Your task to perform on an android device: toggle translation in the chrome app Image 0: 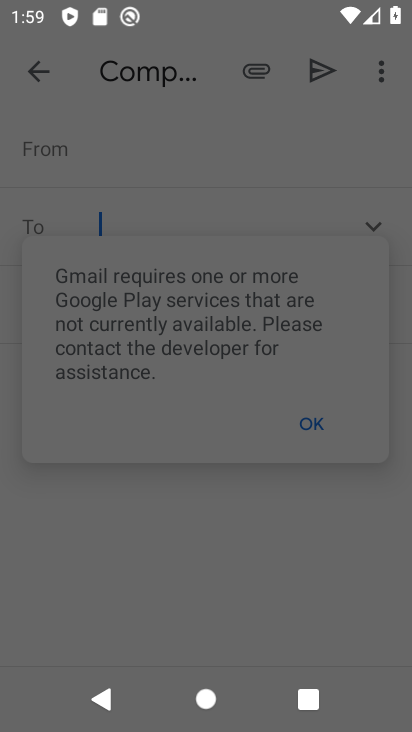
Step 0: press back button
Your task to perform on an android device: toggle translation in the chrome app Image 1: 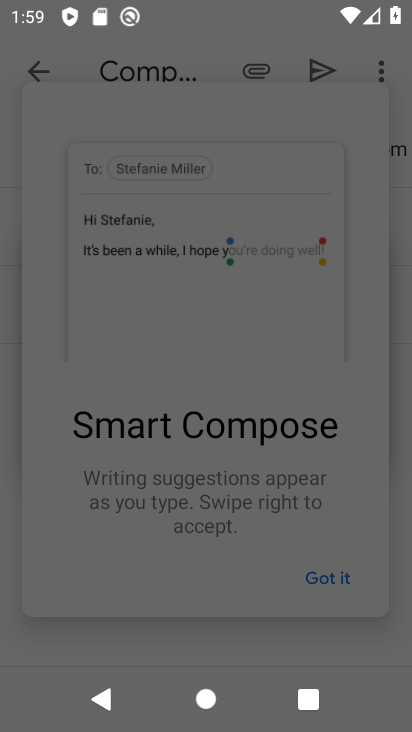
Step 1: press back button
Your task to perform on an android device: toggle translation in the chrome app Image 2: 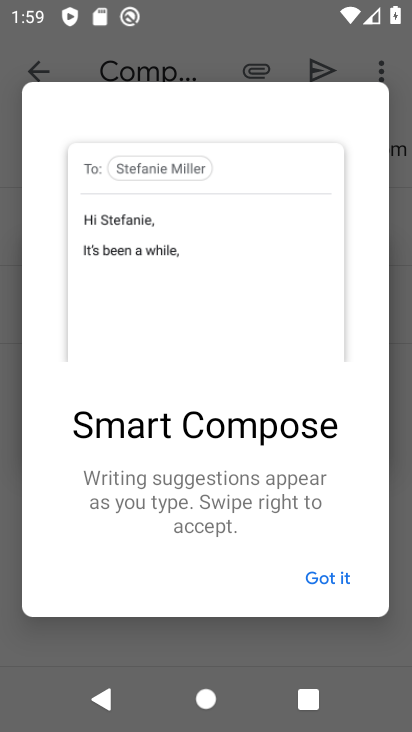
Step 2: press back button
Your task to perform on an android device: toggle translation in the chrome app Image 3: 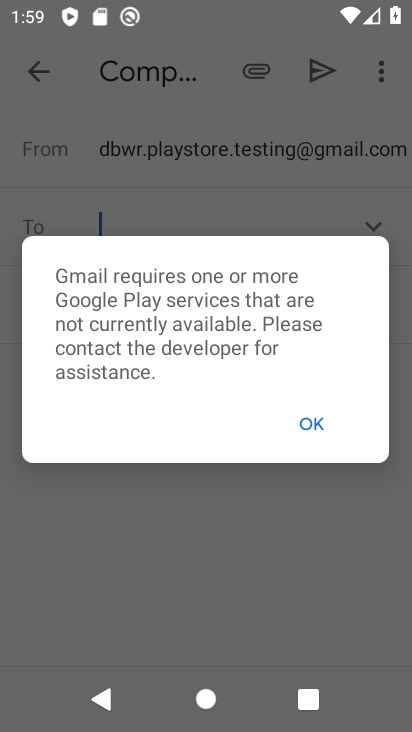
Step 3: press back button
Your task to perform on an android device: toggle translation in the chrome app Image 4: 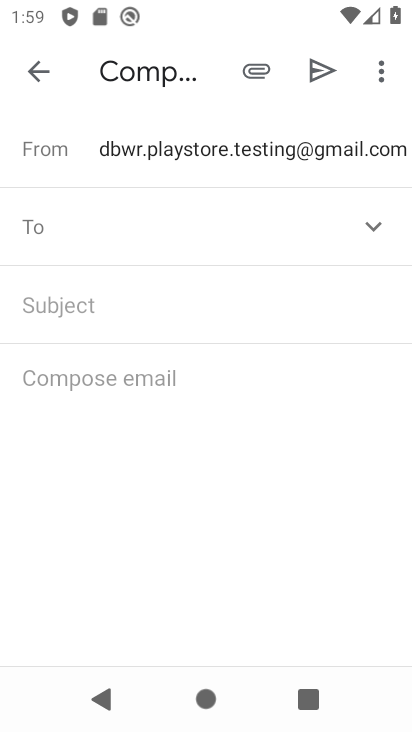
Step 4: press back button
Your task to perform on an android device: toggle translation in the chrome app Image 5: 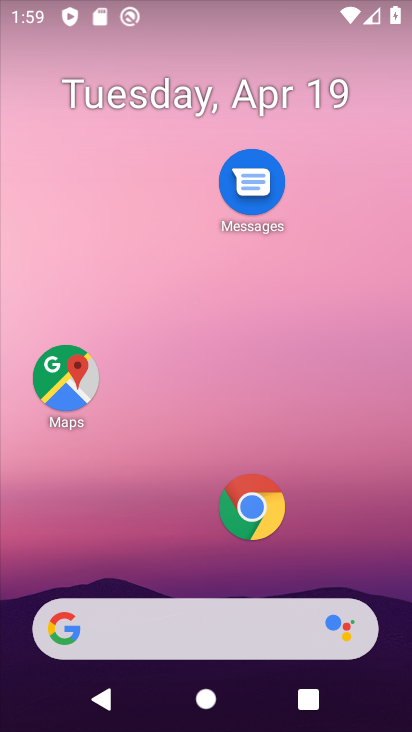
Step 5: drag from (128, 559) to (244, 5)
Your task to perform on an android device: toggle translation in the chrome app Image 6: 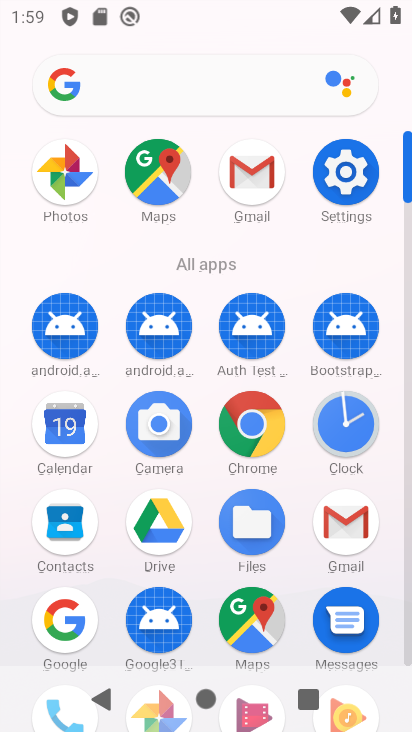
Step 6: click (246, 412)
Your task to perform on an android device: toggle translation in the chrome app Image 7: 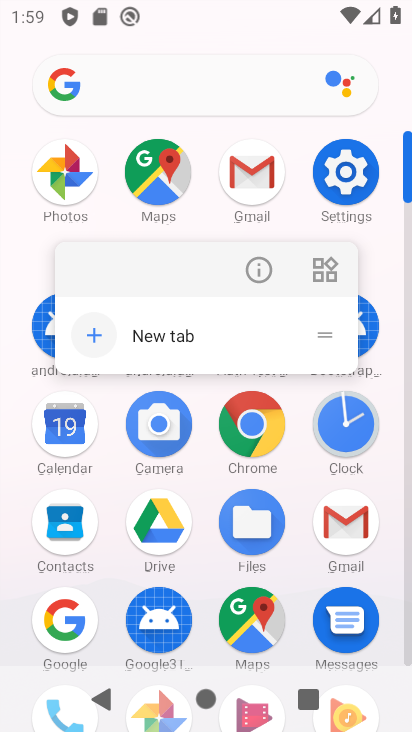
Step 7: click (246, 419)
Your task to perform on an android device: toggle translation in the chrome app Image 8: 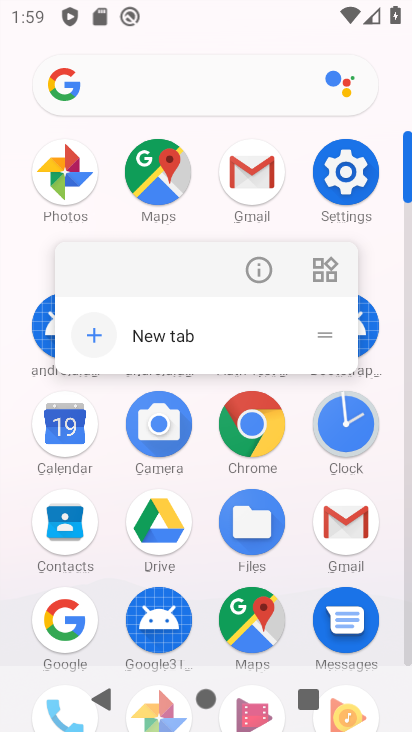
Step 8: click (243, 423)
Your task to perform on an android device: toggle translation in the chrome app Image 9: 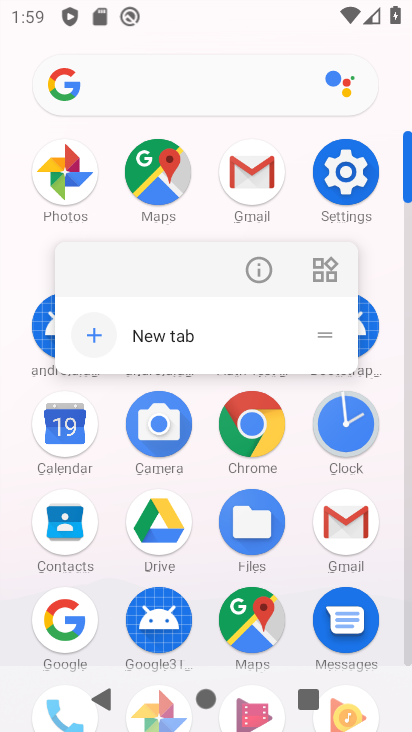
Step 9: click (264, 444)
Your task to perform on an android device: toggle translation in the chrome app Image 10: 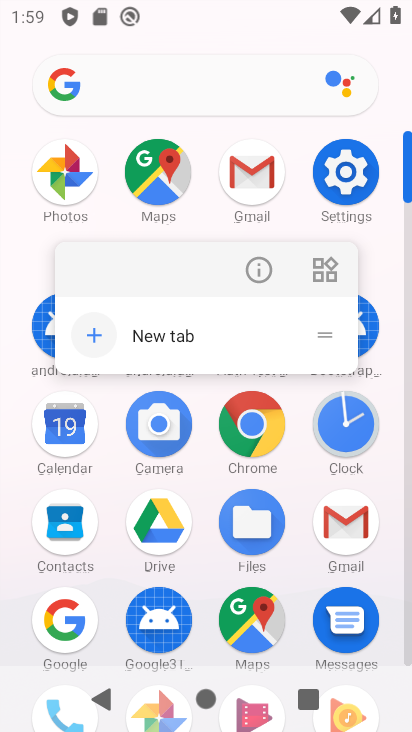
Step 10: click (282, 404)
Your task to perform on an android device: toggle translation in the chrome app Image 11: 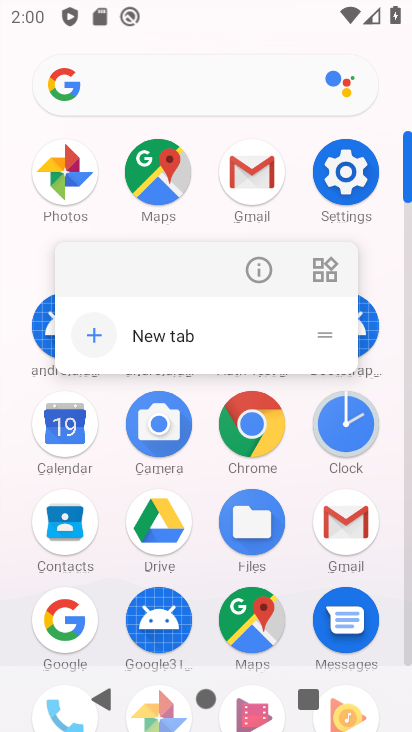
Step 11: click (254, 423)
Your task to perform on an android device: toggle translation in the chrome app Image 12: 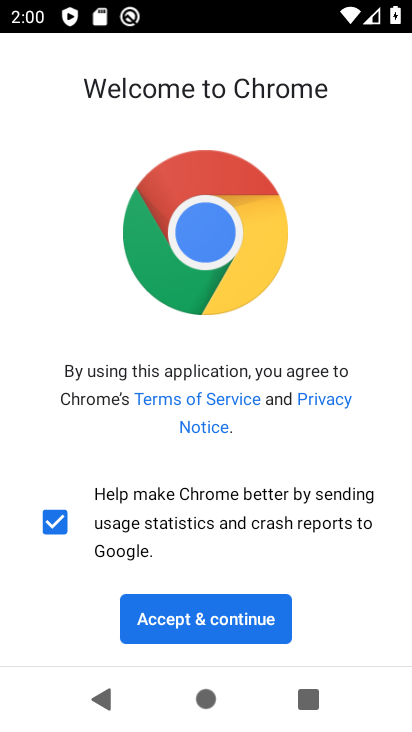
Step 12: click (240, 625)
Your task to perform on an android device: toggle translation in the chrome app Image 13: 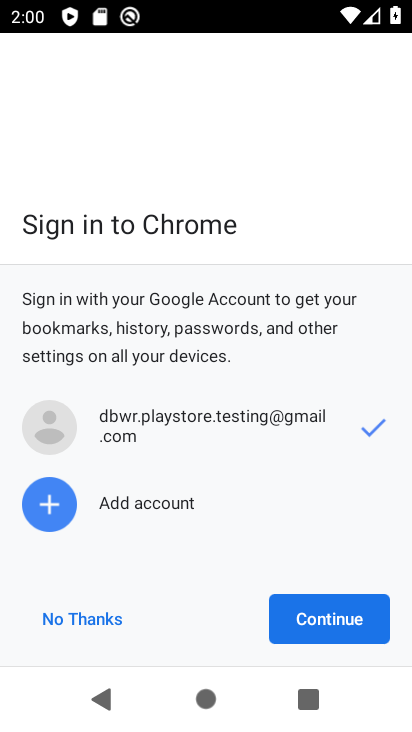
Step 13: click (351, 612)
Your task to perform on an android device: toggle translation in the chrome app Image 14: 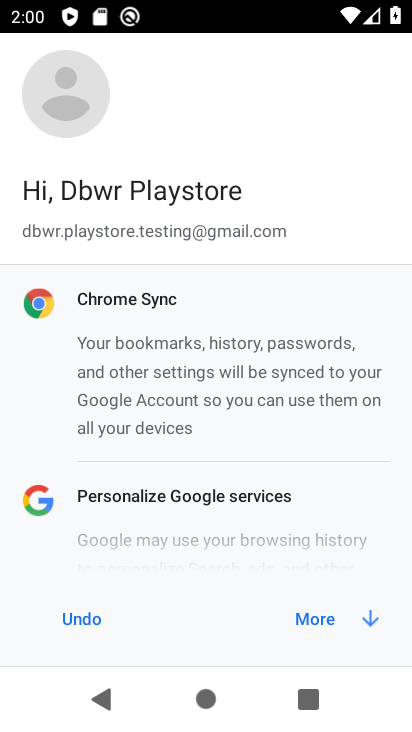
Step 14: click (326, 620)
Your task to perform on an android device: toggle translation in the chrome app Image 15: 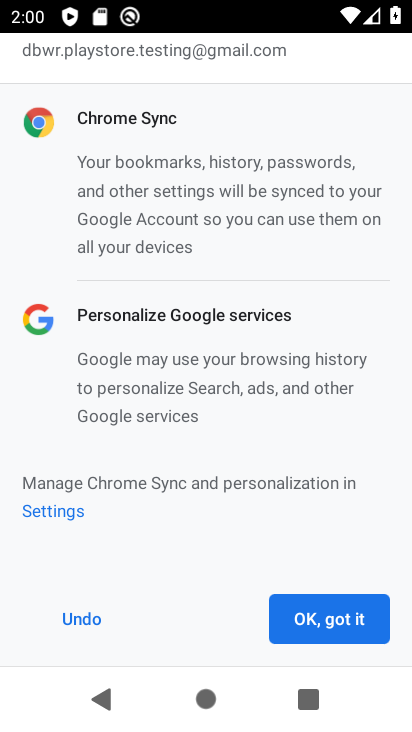
Step 15: click (329, 620)
Your task to perform on an android device: toggle translation in the chrome app Image 16: 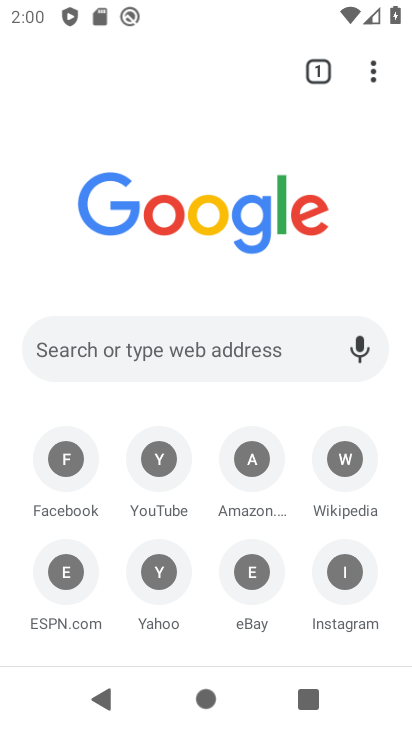
Step 16: click (382, 81)
Your task to perform on an android device: toggle translation in the chrome app Image 17: 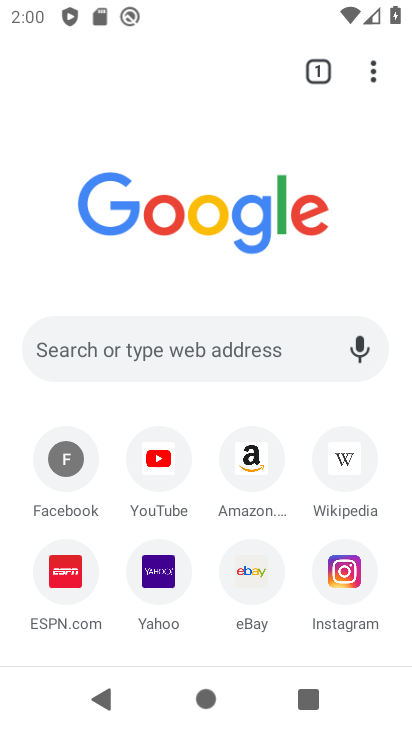
Step 17: drag from (381, 76) to (230, 507)
Your task to perform on an android device: toggle translation in the chrome app Image 18: 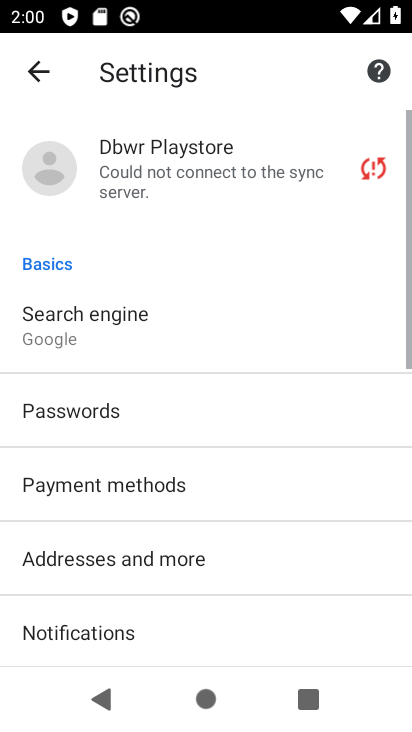
Step 18: drag from (172, 567) to (248, 250)
Your task to perform on an android device: toggle translation in the chrome app Image 19: 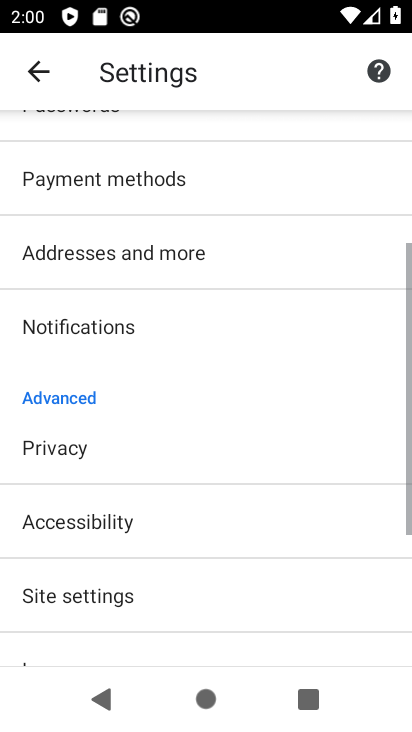
Step 19: drag from (166, 592) to (216, 321)
Your task to perform on an android device: toggle translation in the chrome app Image 20: 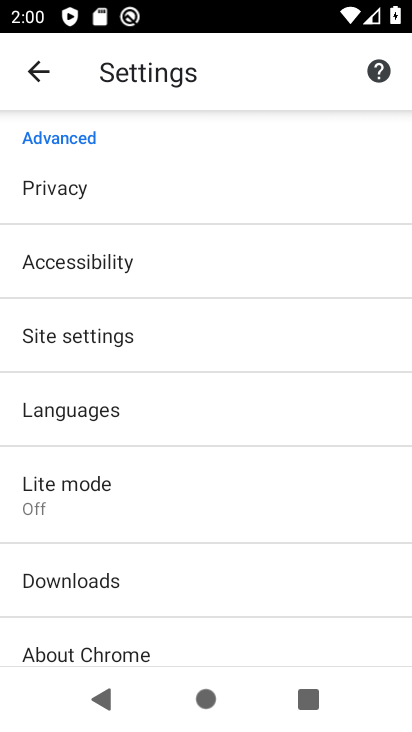
Step 20: click (158, 412)
Your task to perform on an android device: toggle translation in the chrome app Image 21: 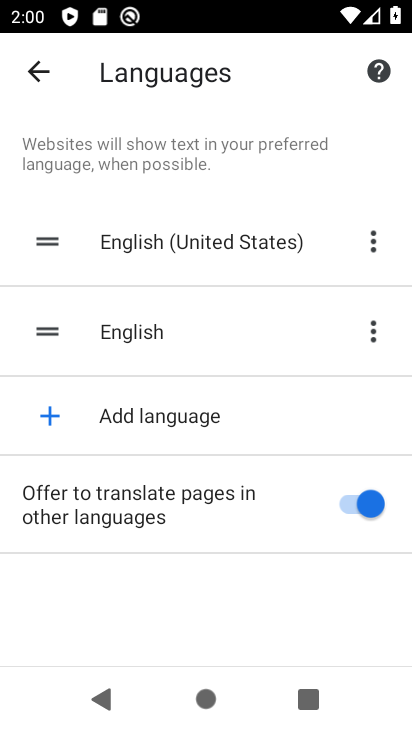
Step 21: click (346, 498)
Your task to perform on an android device: toggle translation in the chrome app Image 22: 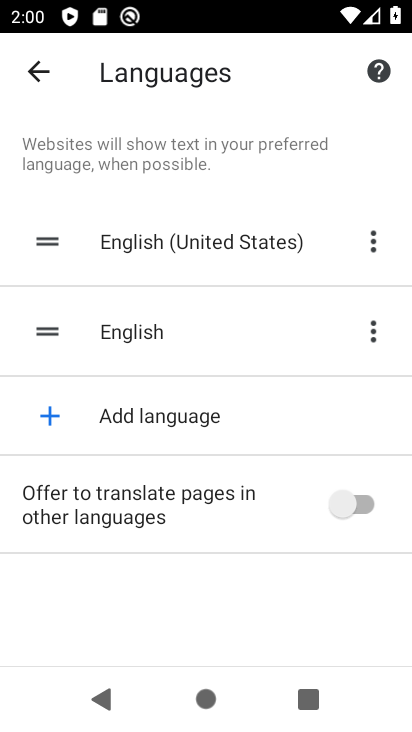
Step 22: task complete